Your task to perform on an android device: Toggle the flashlight Image 0: 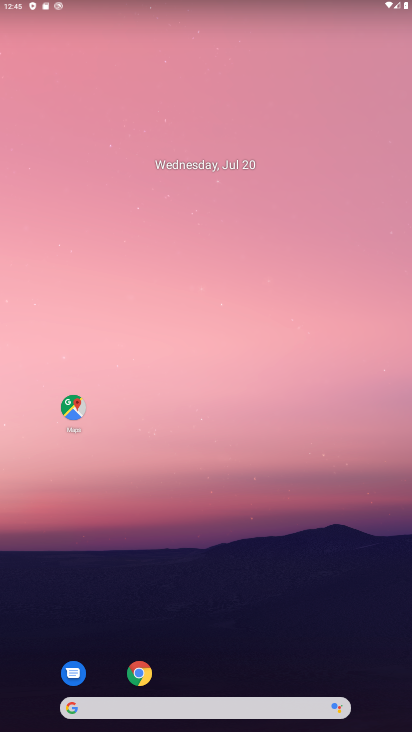
Step 0: drag from (176, 659) to (177, 136)
Your task to perform on an android device: Toggle the flashlight Image 1: 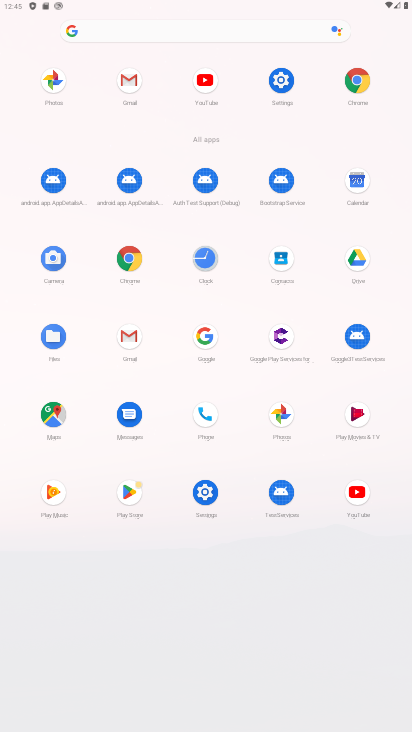
Step 1: click (270, 90)
Your task to perform on an android device: Toggle the flashlight Image 2: 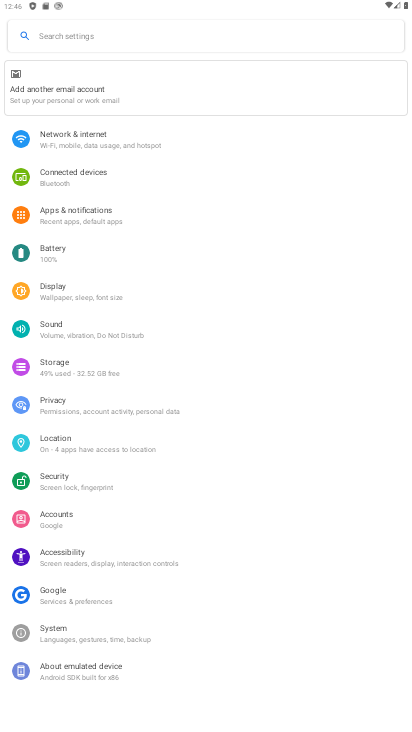
Step 2: task complete